Your task to perform on an android device: Show me recent news Image 0: 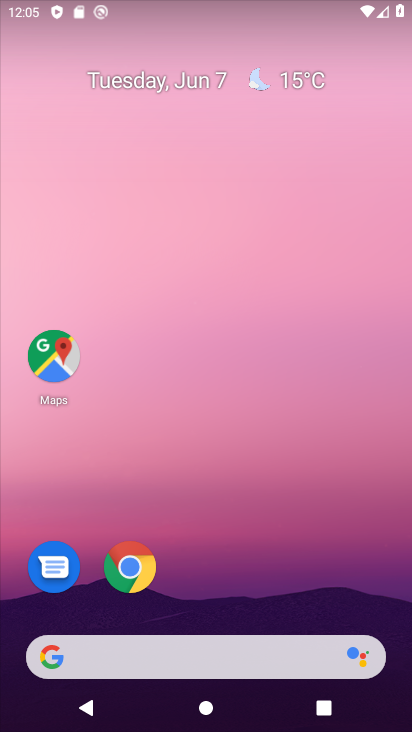
Step 0: drag from (347, 679) to (363, 141)
Your task to perform on an android device: Show me recent news Image 1: 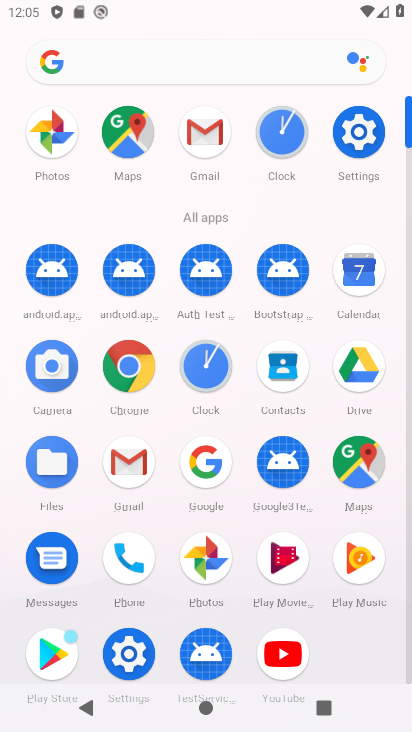
Step 1: click (140, 359)
Your task to perform on an android device: Show me recent news Image 2: 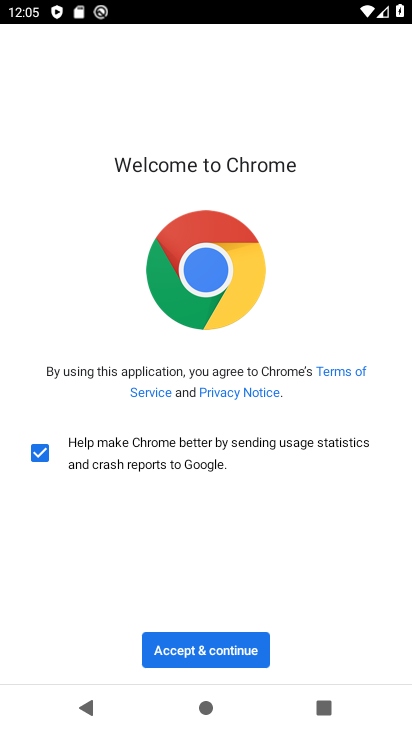
Step 2: click (240, 664)
Your task to perform on an android device: Show me recent news Image 3: 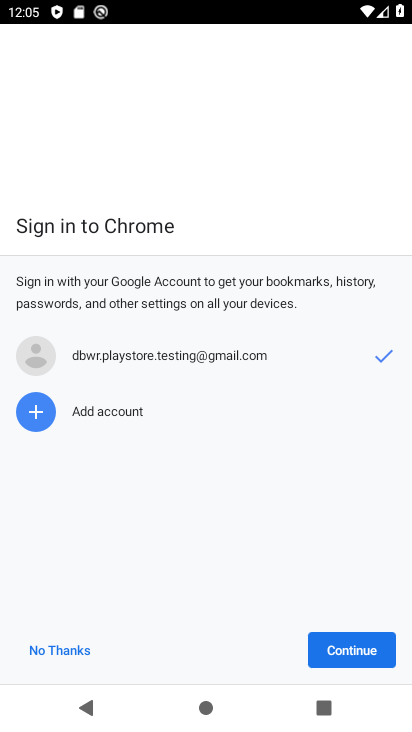
Step 3: click (87, 658)
Your task to perform on an android device: Show me recent news Image 4: 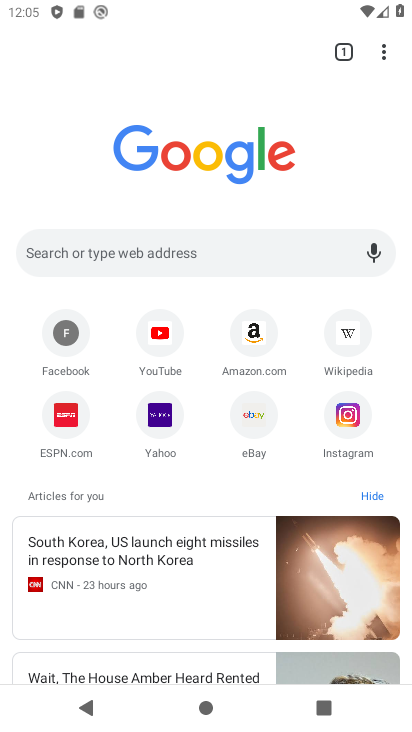
Step 4: click (206, 265)
Your task to perform on an android device: Show me recent news Image 5: 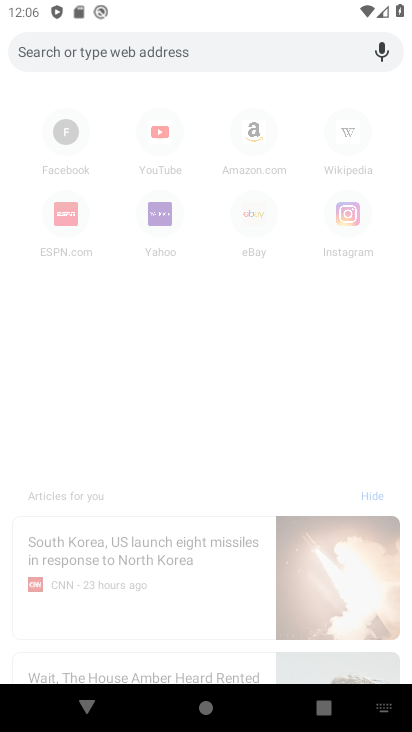
Step 5: type "recent news"
Your task to perform on an android device: Show me recent news Image 6: 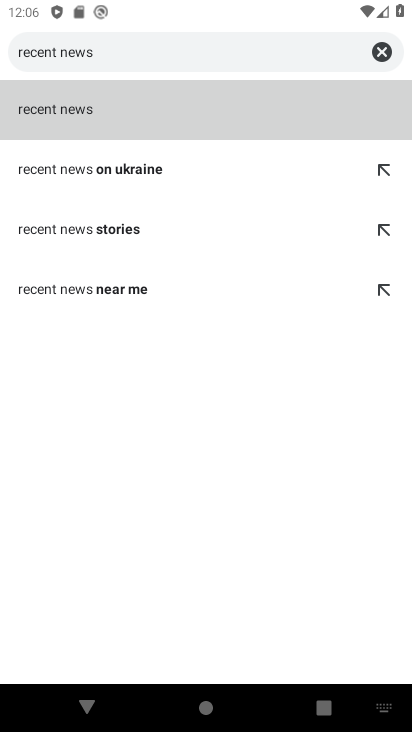
Step 6: click (155, 109)
Your task to perform on an android device: Show me recent news Image 7: 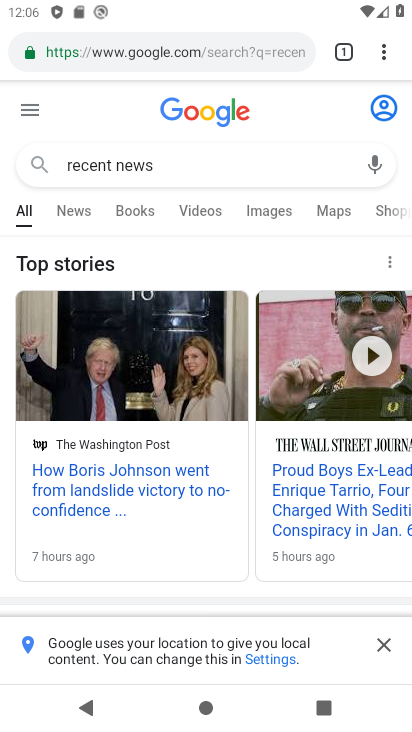
Step 7: task complete